Your task to perform on an android device: Show me recent news Image 0: 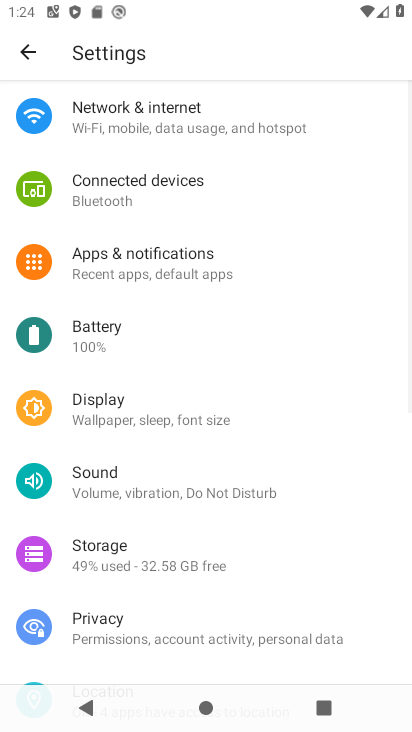
Step 0: press home button
Your task to perform on an android device: Show me recent news Image 1: 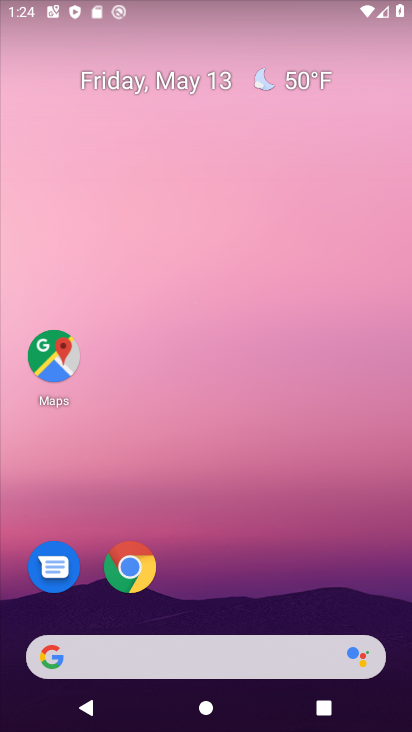
Step 1: drag from (212, 636) to (272, 301)
Your task to perform on an android device: Show me recent news Image 2: 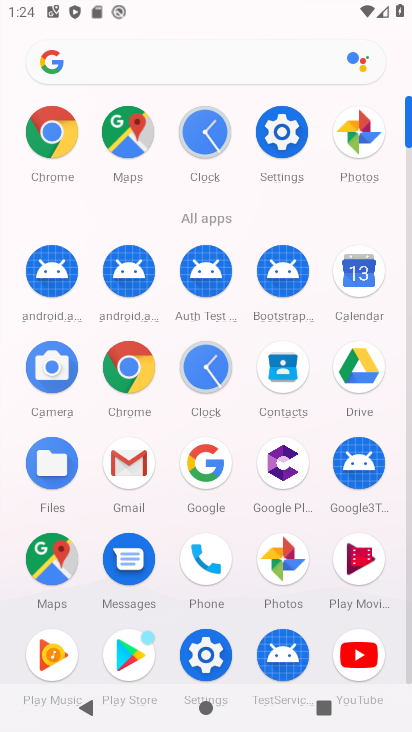
Step 2: click (290, 126)
Your task to perform on an android device: Show me recent news Image 3: 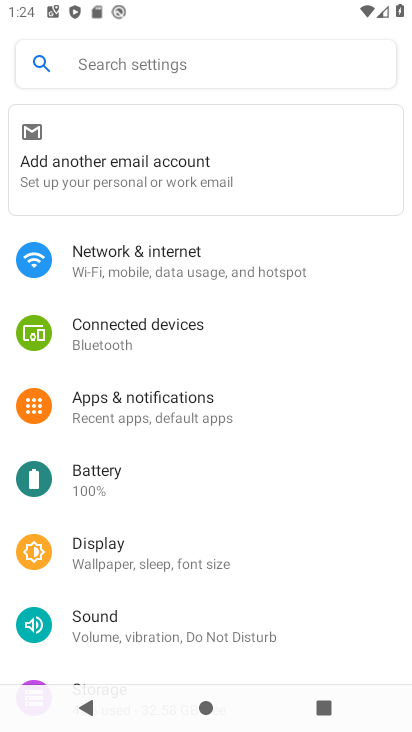
Step 3: press home button
Your task to perform on an android device: Show me recent news Image 4: 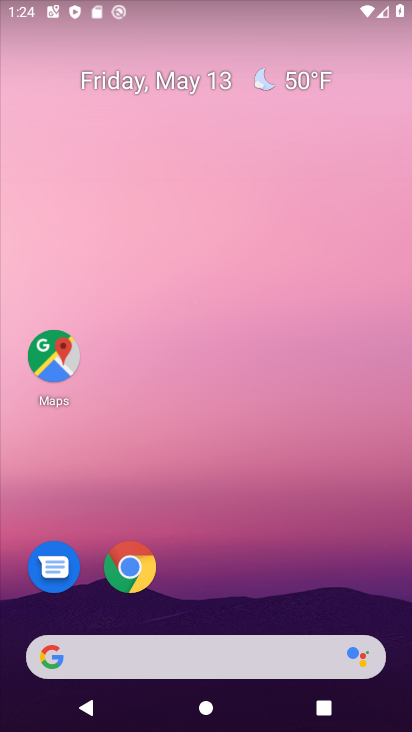
Step 4: drag from (176, 635) to (276, 204)
Your task to perform on an android device: Show me recent news Image 5: 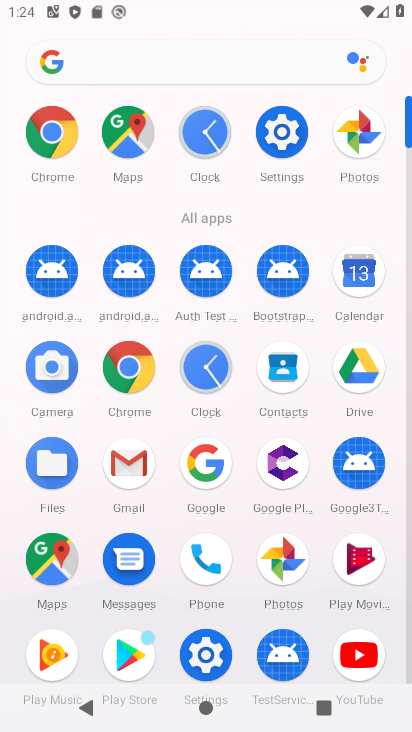
Step 5: click (201, 468)
Your task to perform on an android device: Show me recent news Image 6: 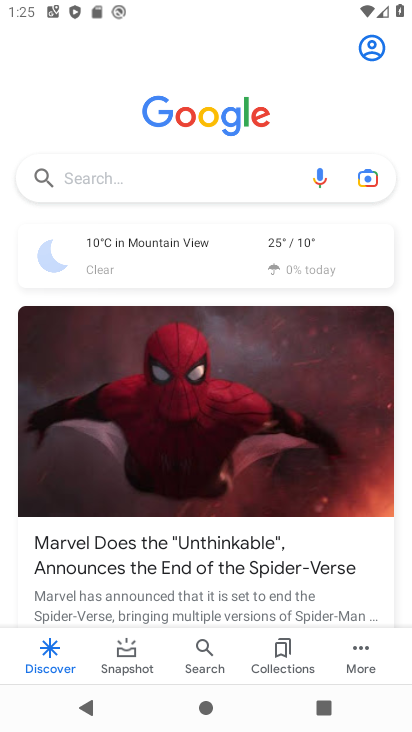
Step 6: click (182, 175)
Your task to perform on an android device: Show me recent news Image 7: 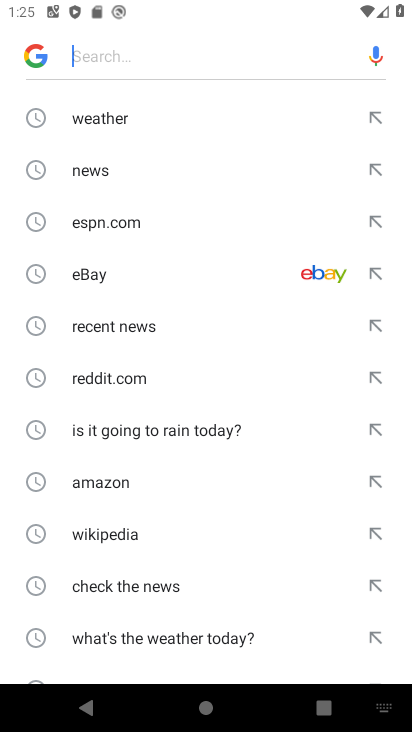
Step 7: click (116, 329)
Your task to perform on an android device: Show me recent news Image 8: 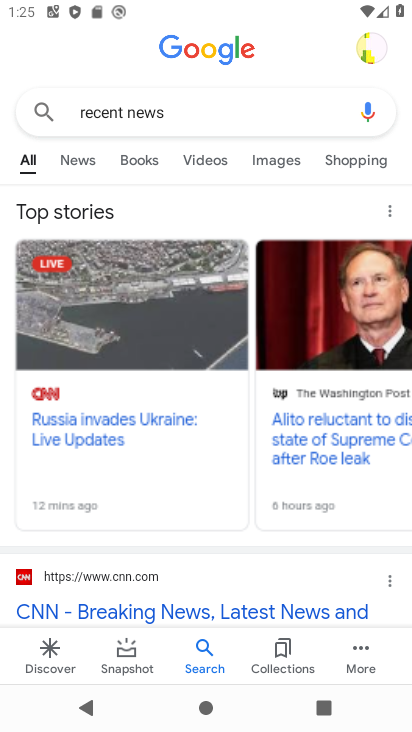
Step 8: task complete